Your task to perform on an android device: Do I have any events tomorrow? Image 0: 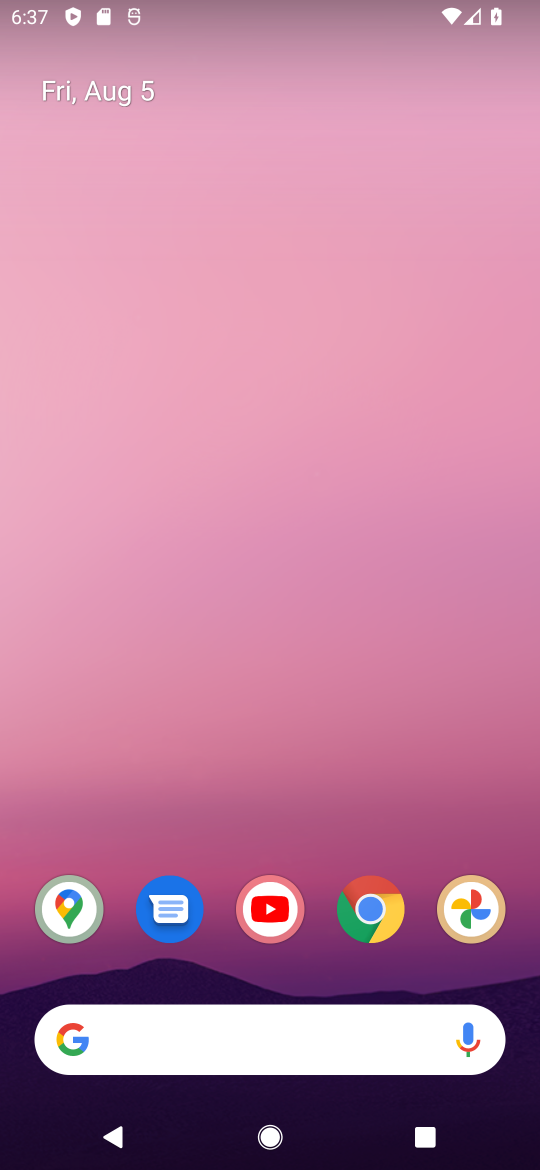
Step 0: drag from (371, 794) to (405, 107)
Your task to perform on an android device: Do I have any events tomorrow? Image 1: 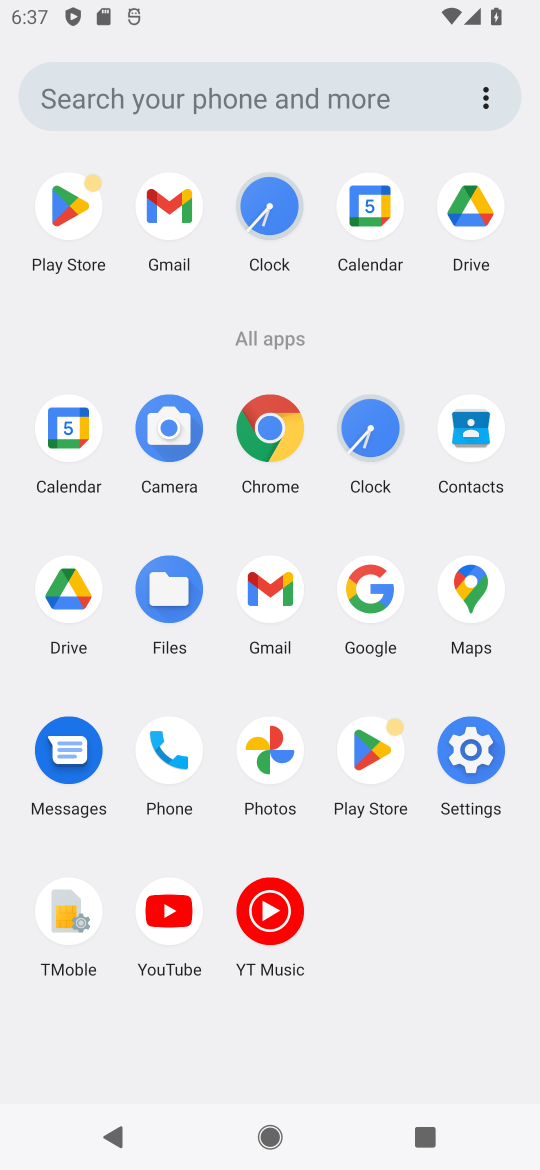
Step 1: click (79, 433)
Your task to perform on an android device: Do I have any events tomorrow? Image 2: 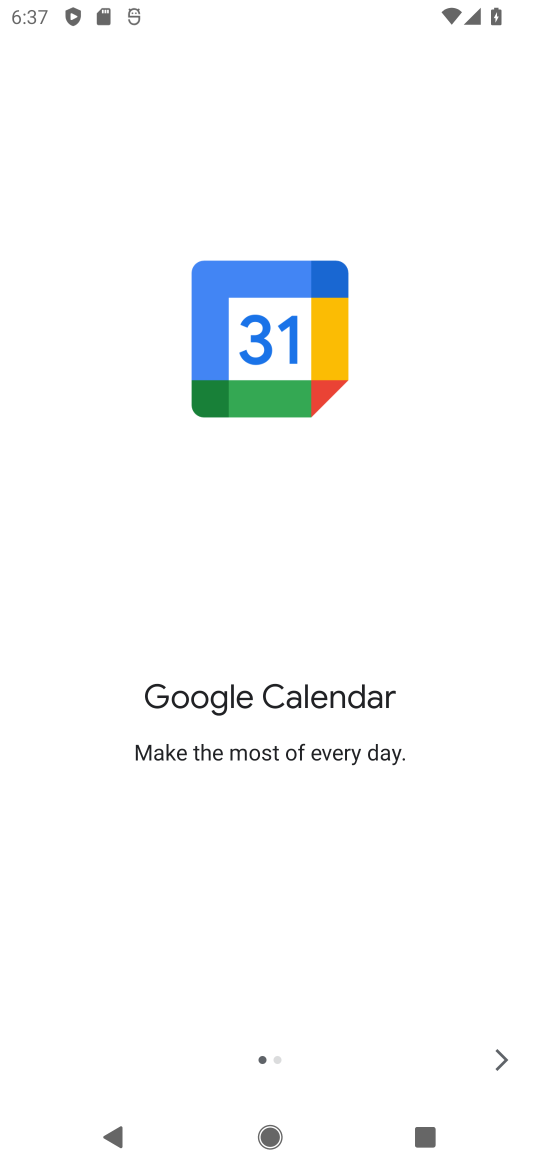
Step 2: click (510, 1039)
Your task to perform on an android device: Do I have any events tomorrow? Image 3: 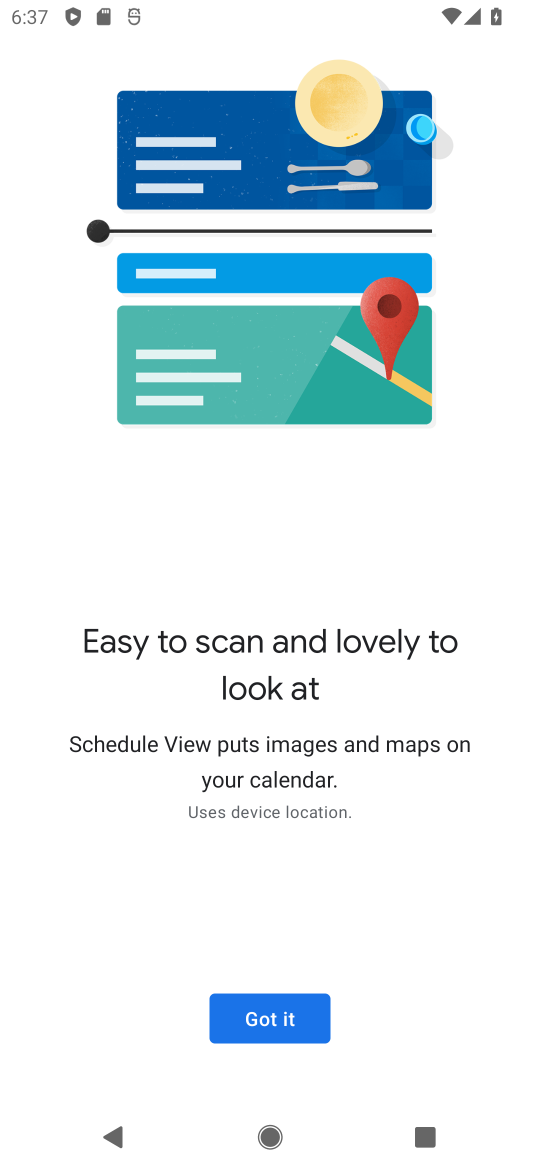
Step 3: click (299, 1021)
Your task to perform on an android device: Do I have any events tomorrow? Image 4: 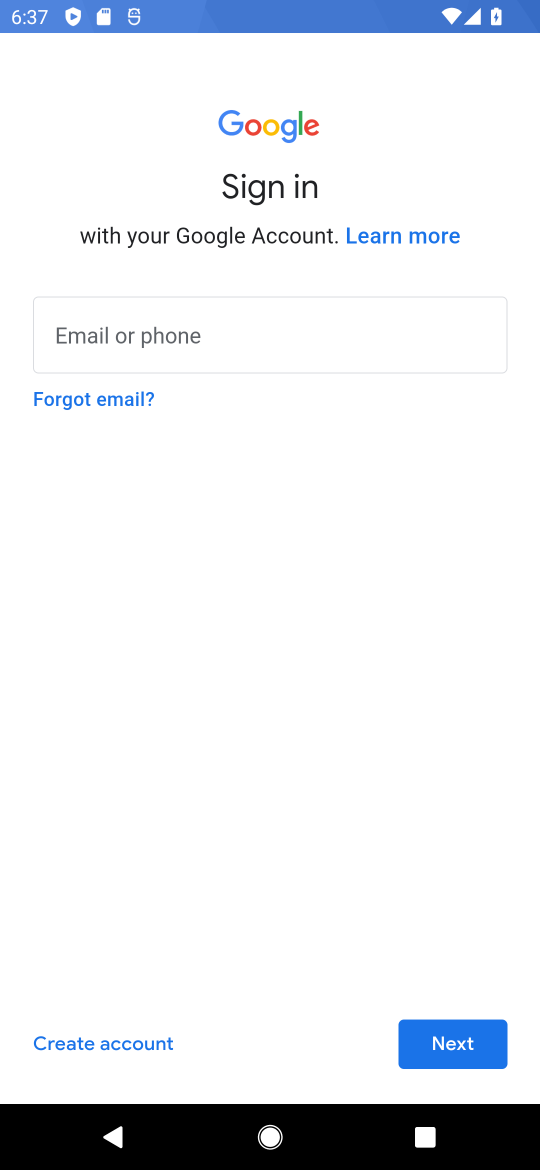
Step 4: task complete